Your task to perform on an android device: turn off notifications settings in the gmail app Image 0: 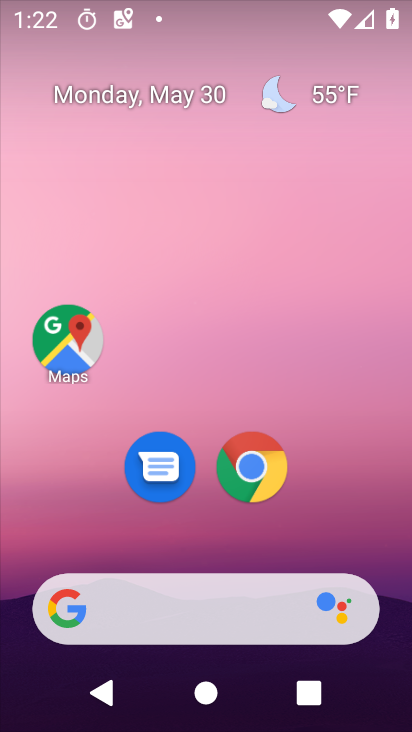
Step 0: drag from (400, 534) to (405, 75)
Your task to perform on an android device: turn off notifications settings in the gmail app Image 1: 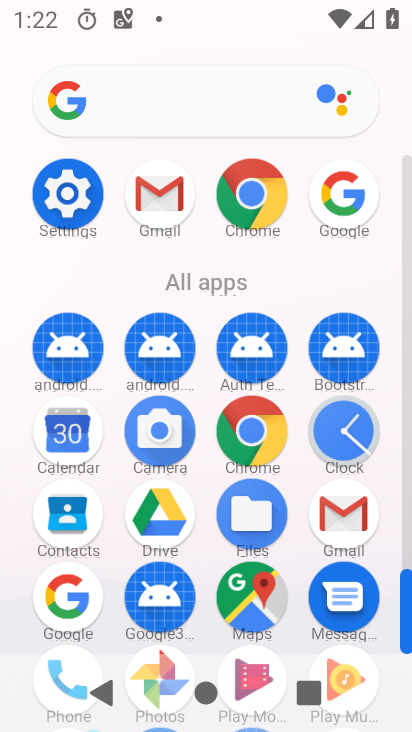
Step 1: click (333, 500)
Your task to perform on an android device: turn off notifications settings in the gmail app Image 2: 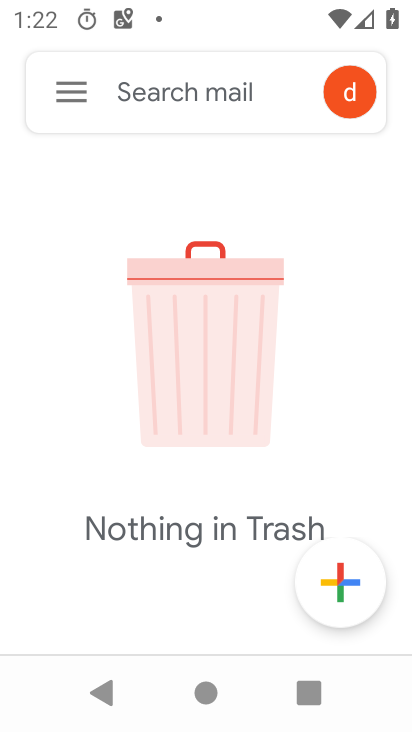
Step 2: click (76, 99)
Your task to perform on an android device: turn off notifications settings in the gmail app Image 3: 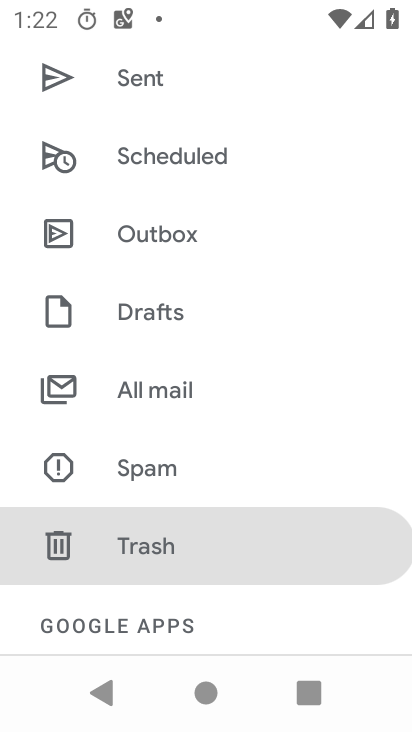
Step 3: drag from (314, 193) to (307, 518)
Your task to perform on an android device: turn off notifications settings in the gmail app Image 4: 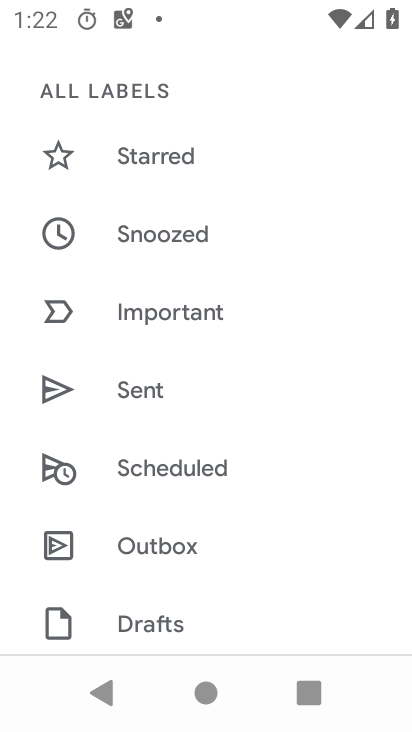
Step 4: drag from (295, 219) to (304, 614)
Your task to perform on an android device: turn off notifications settings in the gmail app Image 5: 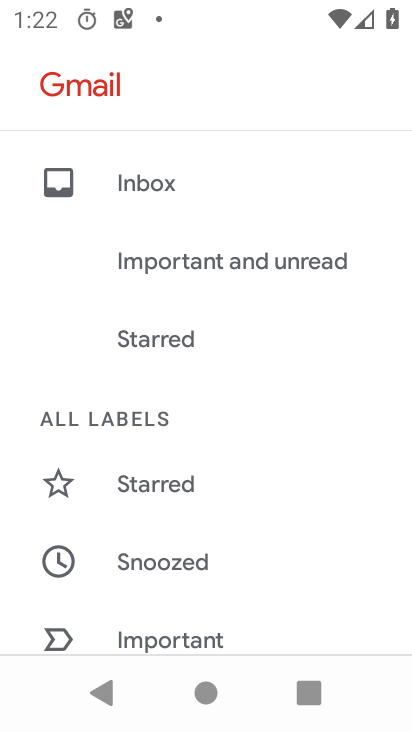
Step 5: drag from (308, 250) to (317, 617)
Your task to perform on an android device: turn off notifications settings in the gmail app Image 6: 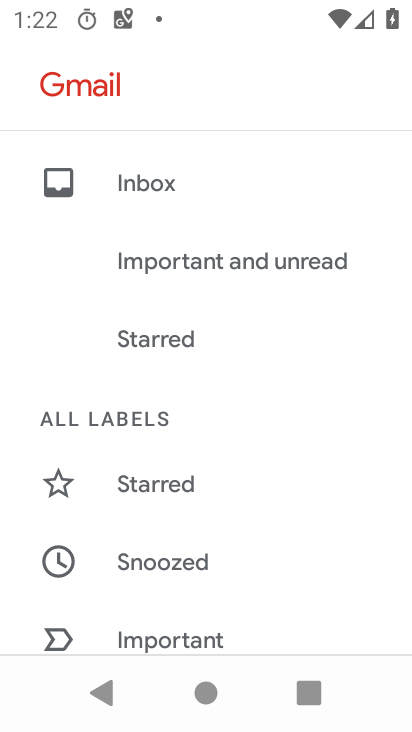
Step 6: drag from (258, 547) to (269, 253)
Your task to perform on an android device: turn off notifications settings in the gmail app Image 7: 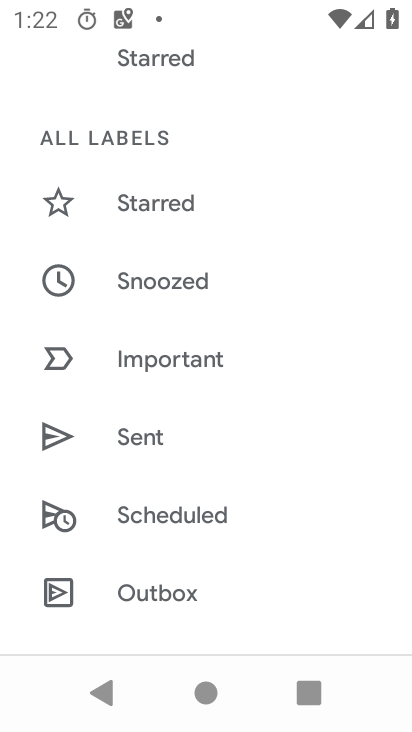
Step 7: drag from (260, 592) to (271, 287)
Your task to perform on an android device: turn off notifications settings in the gmail app Image 8: 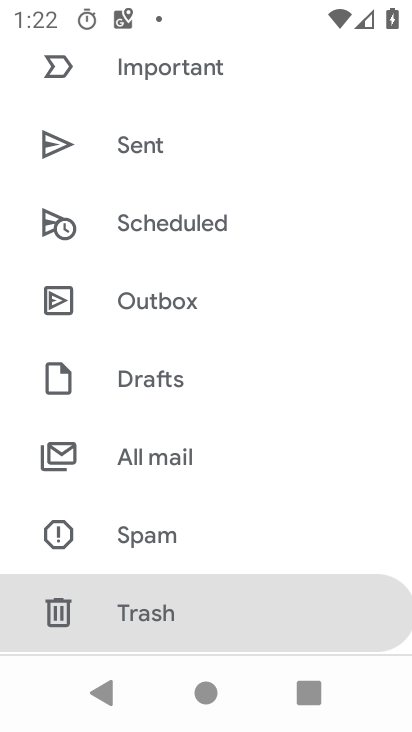
Step 8: drag from (298, 538) to (308, 252)
Your task to perform on an android device: turn off notifications settings in the gmail app Image 9: 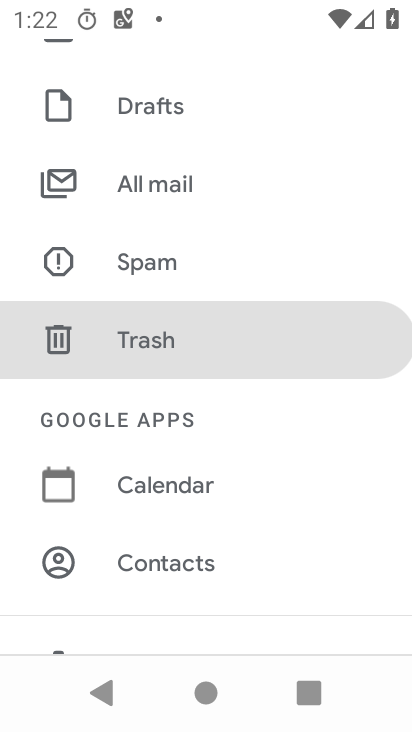
Step 9: drag from (298, 555) to (311, 234)
Your task to perform on an android device: turn off notifications settings in the gmail app Image 10: 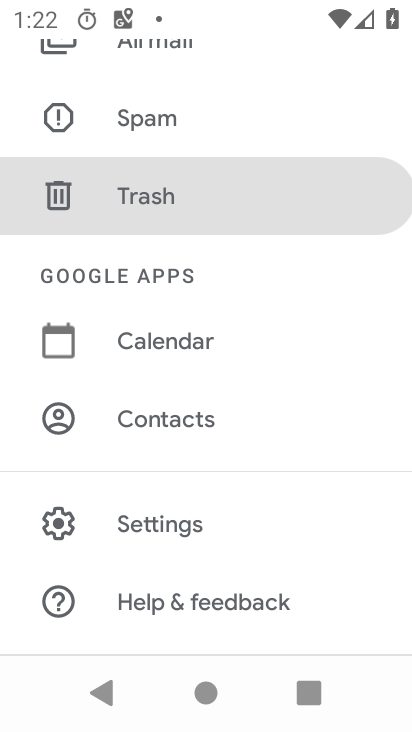
Step 10: click (143, 531)
Your task to perform on an android device: turn off notifications settings in the gmail app Image 11: 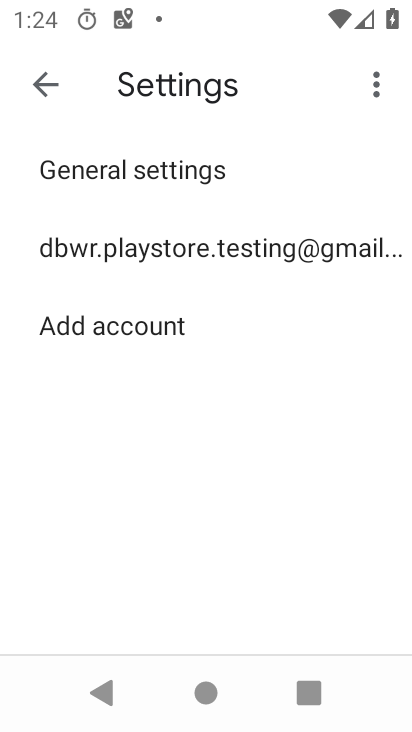
Step 11: click (48, 174)
Your task to perform on an android device: turn off notifications settings in the gmail app Image 12: 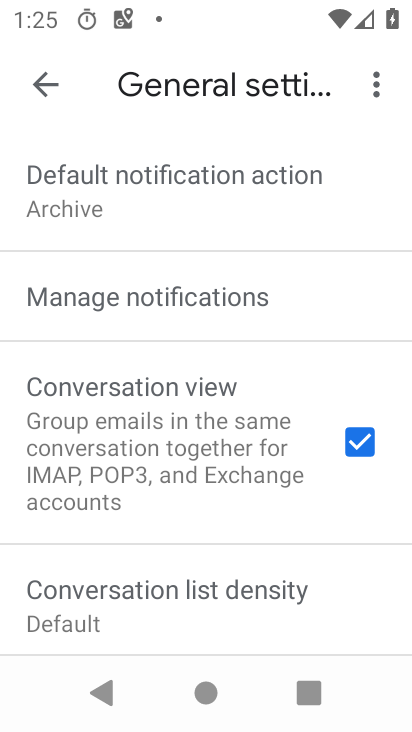
Step 12: click (130, 300)
Your task to perform on an android device: turn off notifications settings in the gmail app Image 13: 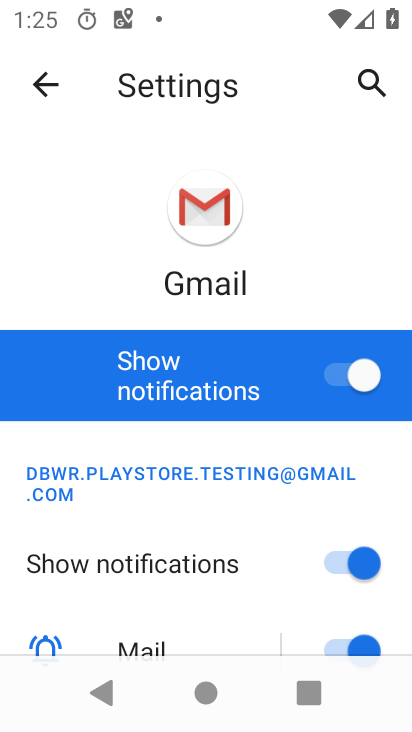
Step 13: click (329, 372)
Your task to perform on an android device: turn off notifications settings in the gmail app Image 14: 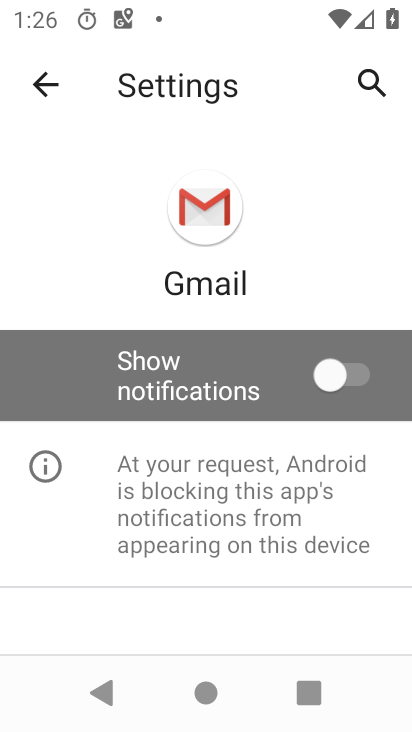
Step 14: task complete